Your task to perform on an android device: Open settings Image 0: 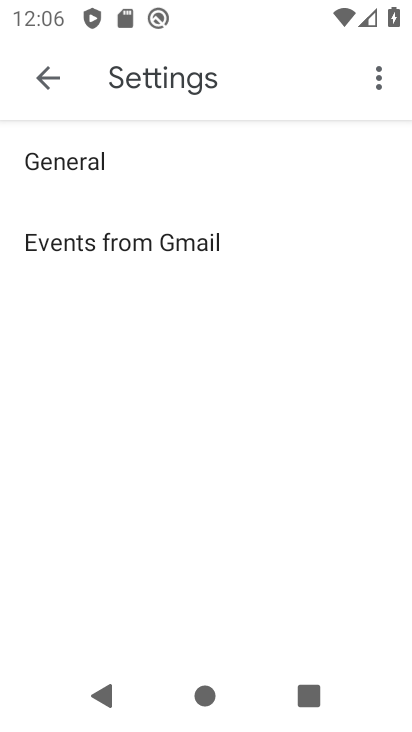
Step 0: press home button
Your task to perform on an android device: Open settings Image 1: 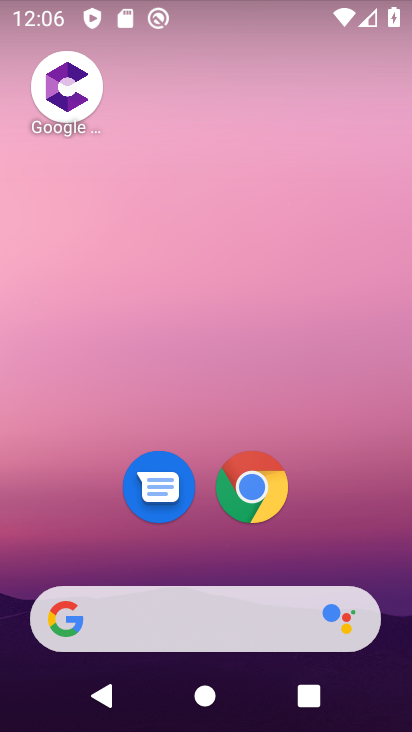
Step 1: drag from (71, 308) to (387, 328)
Your task to perform on an android device: Open settings Image 2: 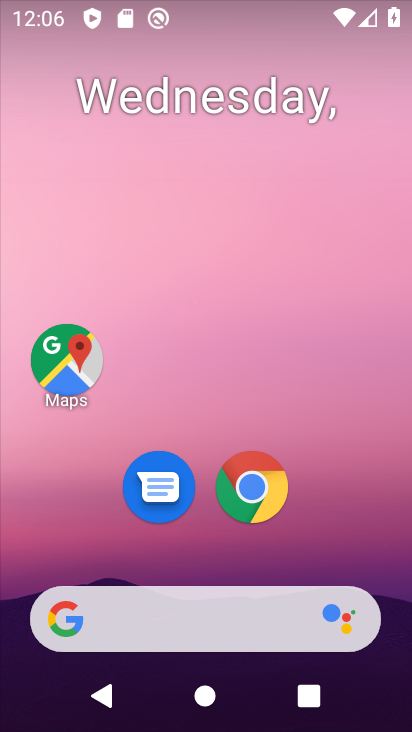
Step 2: drag from (322, 513) to (240, 0)
Your task to perform on an android device: Open settings Image 3: 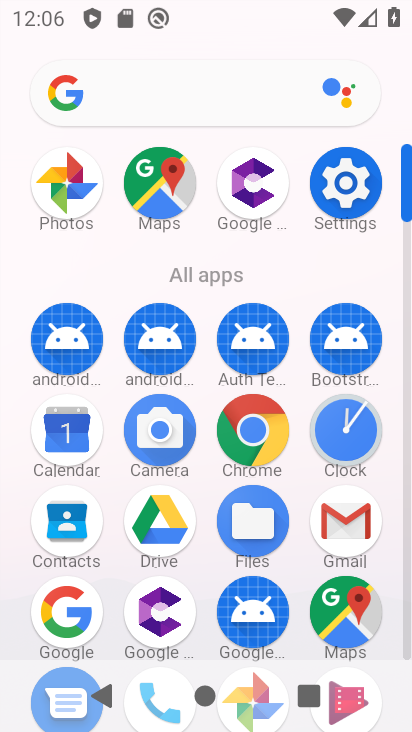
Step 3: drag from (330, 191) to (108, 140)
Your task to perform on an android device: Open settings Image 4: 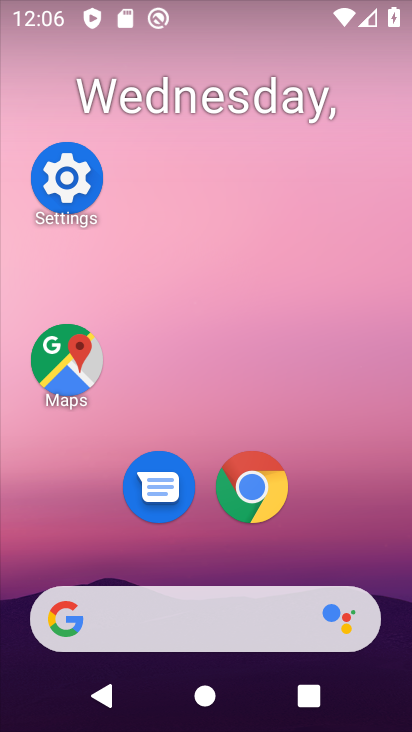
Step 4: click (67, 180)
Your task to perform on an android device: Open settings Image 5: 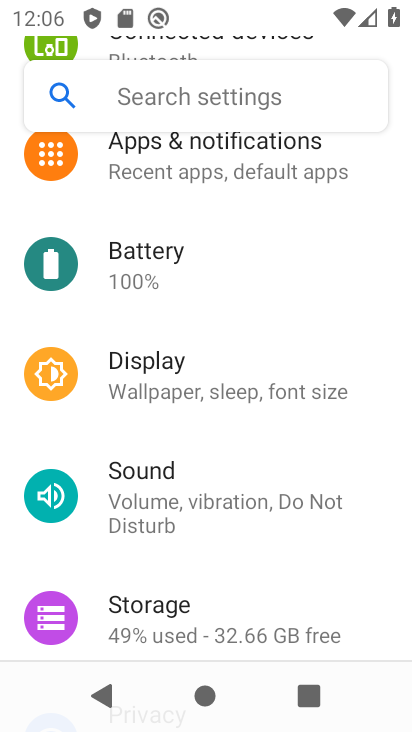
Step 5: task complete